Your task to perform on an android device: open sync settings in chrome Image 0: 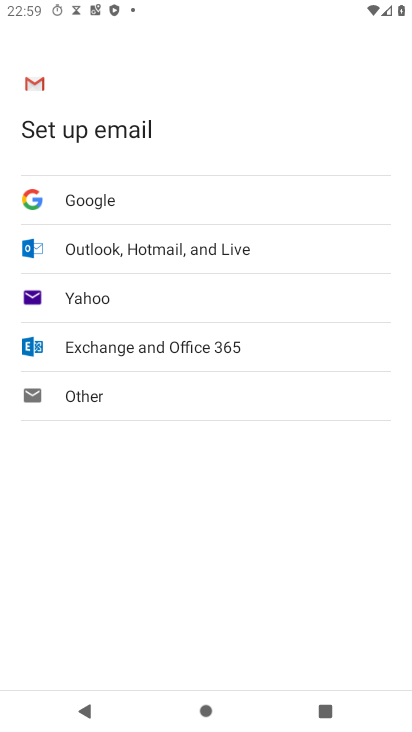
Step 0: press home button
Your task to perform on an android device: open sync settings in chrome Image 1: 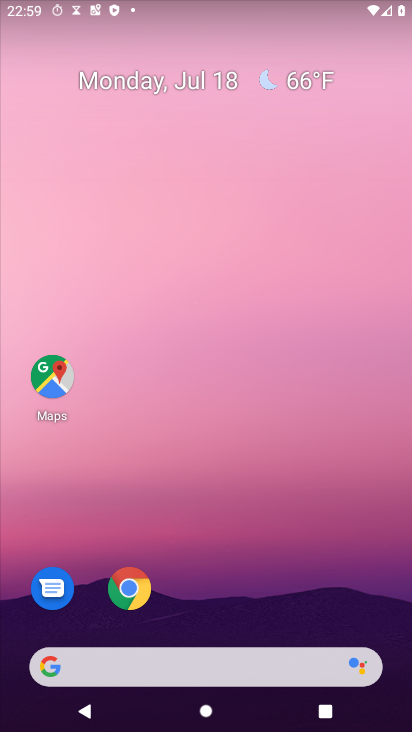
Step 1: click (125, 585)
Your task to perform on an android device: open sync settings in chrome Image 2: 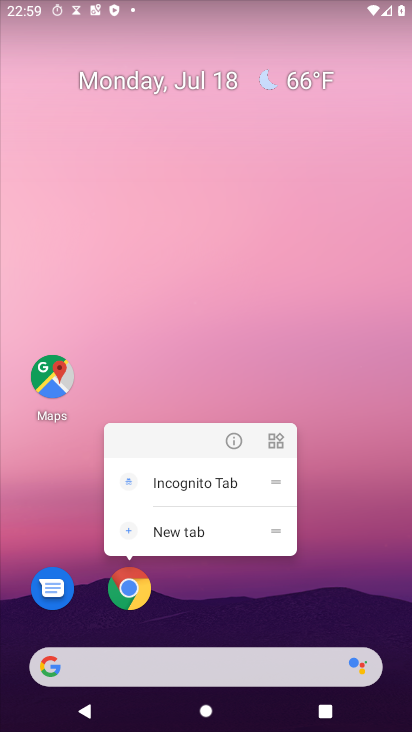
Step 2: click (126, 590)
Your task to perform on an android device: open sync settings in chrome Image 3: 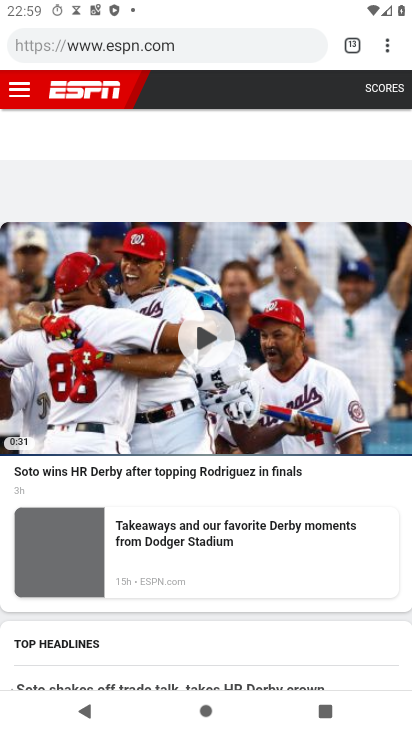
Step 3: drag from (378, 46) to (252, 552)
Your task to perform on an android device: open sync settings in chrome Image 4: 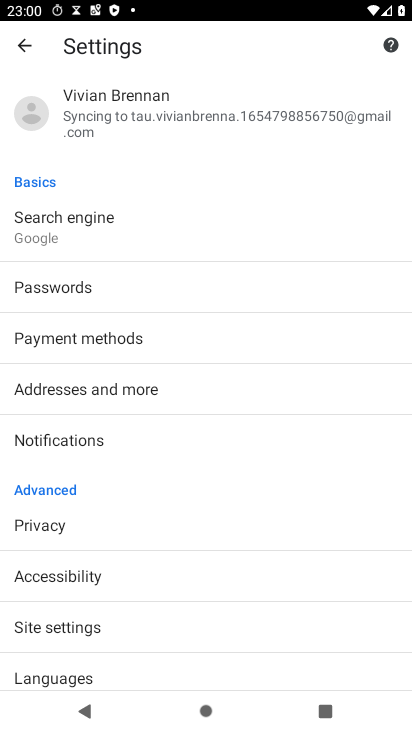
Step 4: click (173, 130)
Your task to perform on an android device: open sync settings in chrome Image 5: 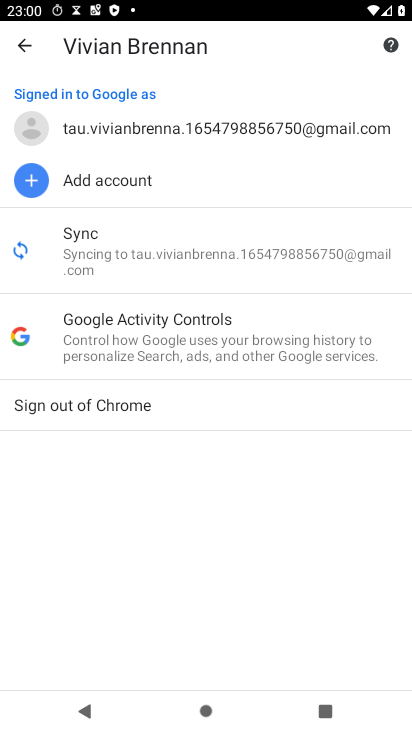
Step 5: click (107, 238)
Your task to perform on an android device: open sync settings in chrome Image 6: 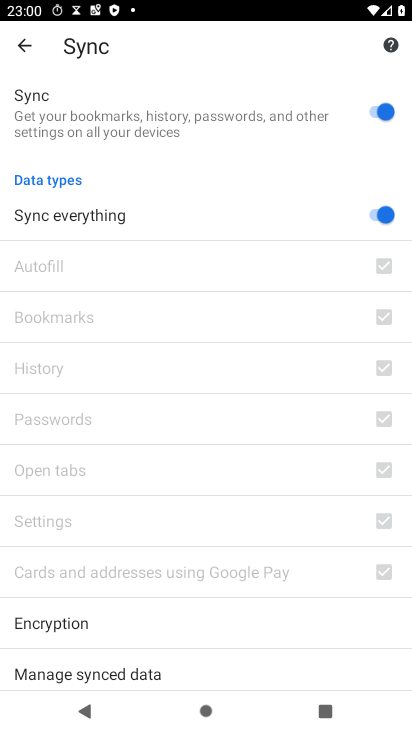
Step 6: task complete